Your task to perform on an android device: allow cookies in the chrome app Image 0: 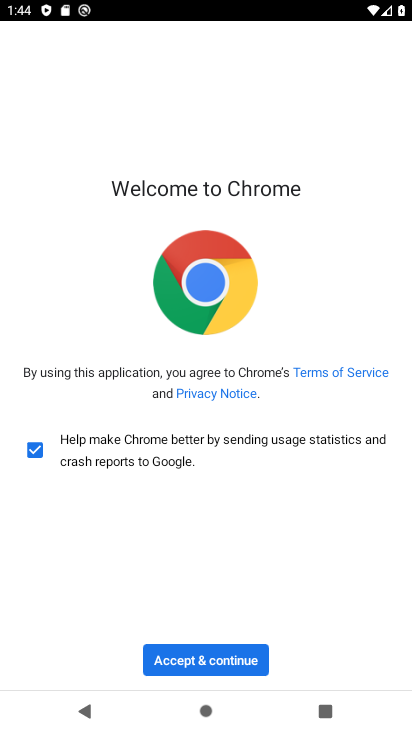
Step 0: press home button
Your task to perform on an android device: allow cookies in the chrome app Image 1: 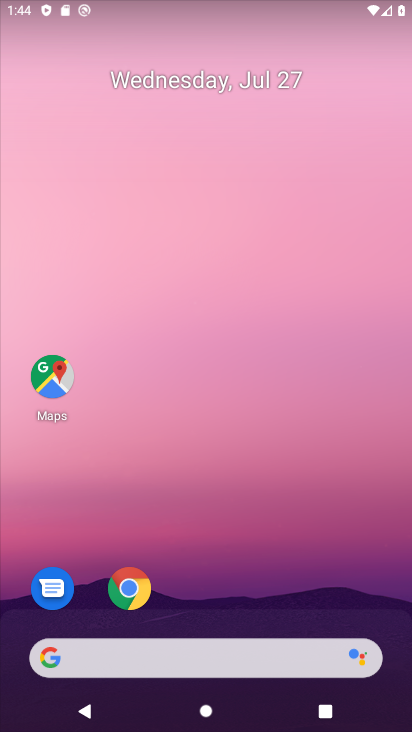
Step 1: click (108, 584)
Your task to perform on an android device: allow cookies in the chrome app Image 2: 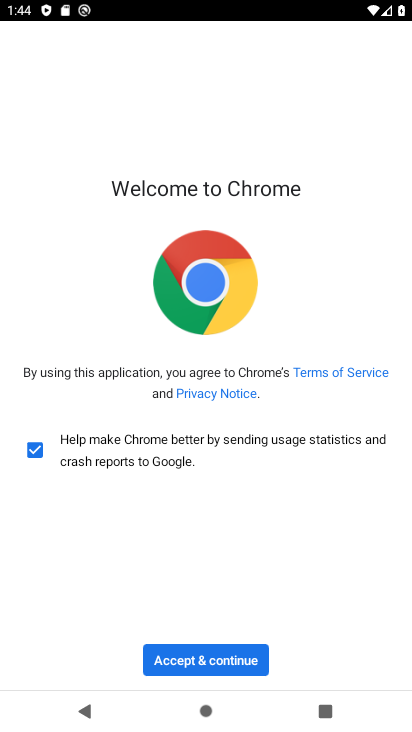
Step 2: click (249, 642)
Your task to perform on an android device: allow cookies in the chrome app Image 3: 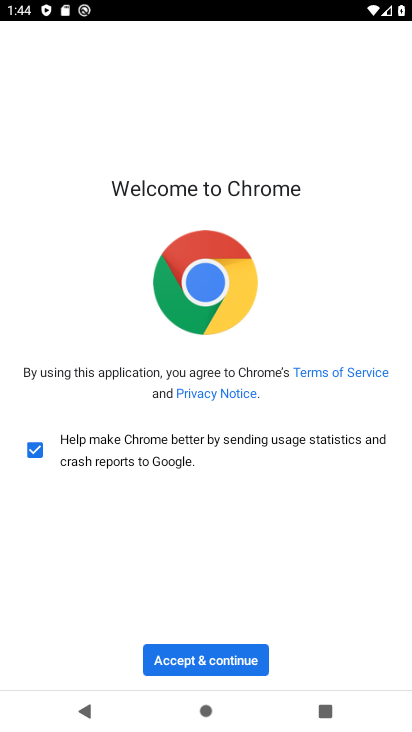
Step 3: click (181, 652)
Your task to perform on an android device: allow cookies in the chrome app Image 4: 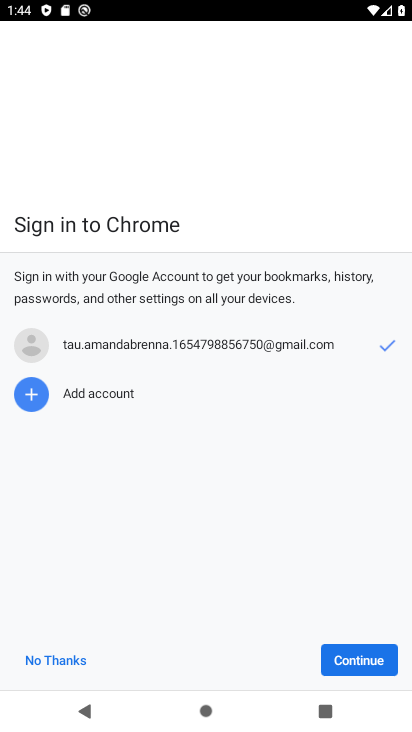
Step 4: click (334, 660)
Your task to perform on an android device: allow cookies in the chrome app Image 5: 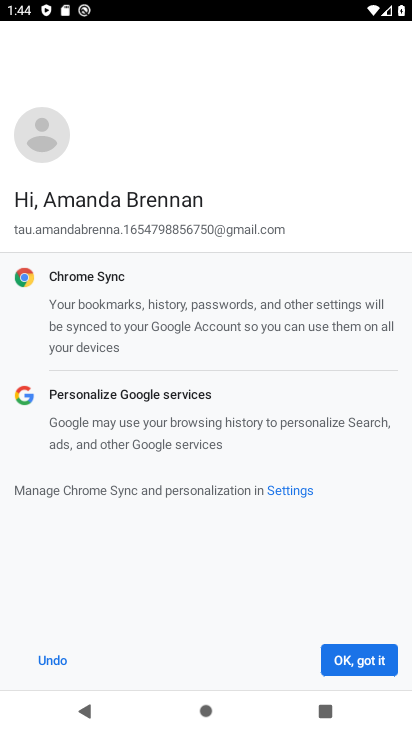
Step 5: click (353, 656)
Your task to perform on an android device: allow cookies in the chrome app Image 6: 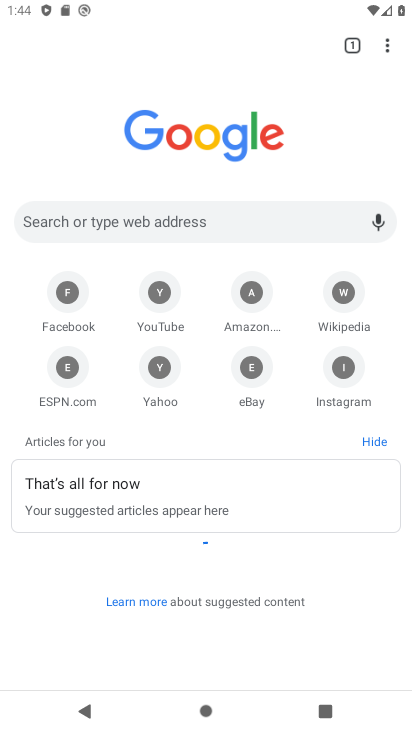
Step 6: click (381, 53)
Your task to perform on an android device: allow cookies in the chrome app Image 7: 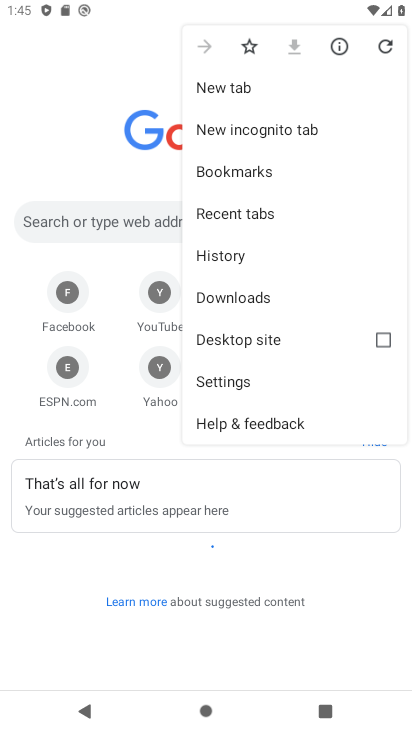
Step 7: click (236, 366)
Your task to perform on an android device: allow cookies in the chrome app Image 8: 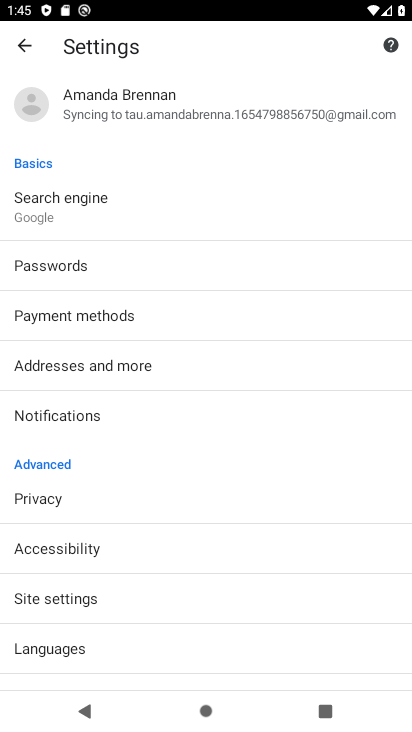
Step 8: click (96, 584)
Your task to perform on an android device: allow cookies in the chrome app Image 9: 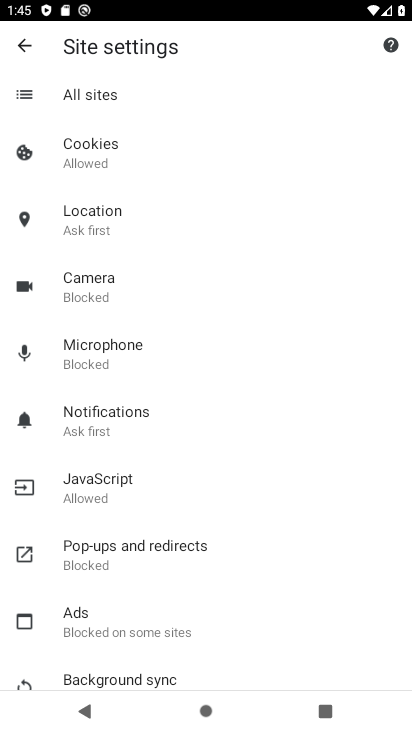
Step 9: click (108, 171)
Your task to perform on an android device: allow cookies in the chrome app Image 10: 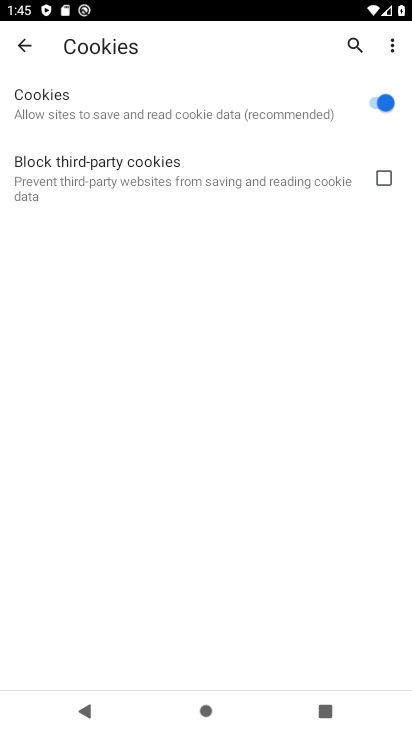
Step 10: task complete